Your task to perform on an android device: Open the calendar app, open the side menu, and click the "Day" option Image 0: 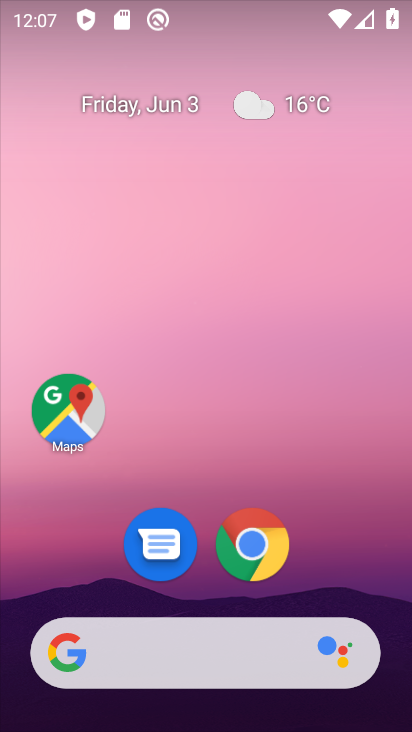
Step 0: drag from (335, 562) to (305, 139)
Your task to perform on an android device: Open the calendar app, open the side menu, and click the "Day" option Image 1: 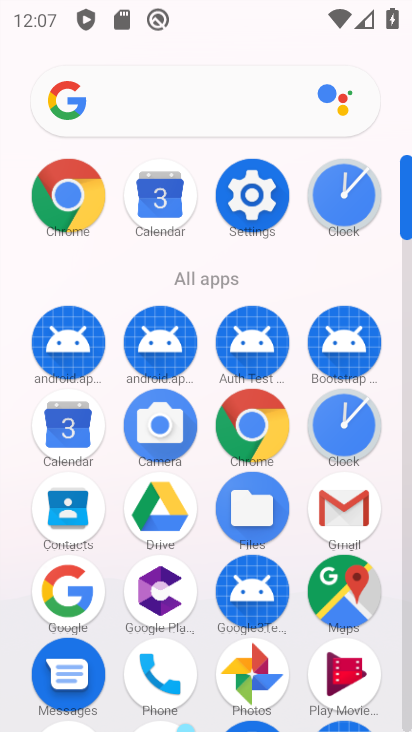
Step 1: click (57, 447)
Your task to perform on an android device: Open the calendar app, open the side menu, and click the "Day" option Image 2: 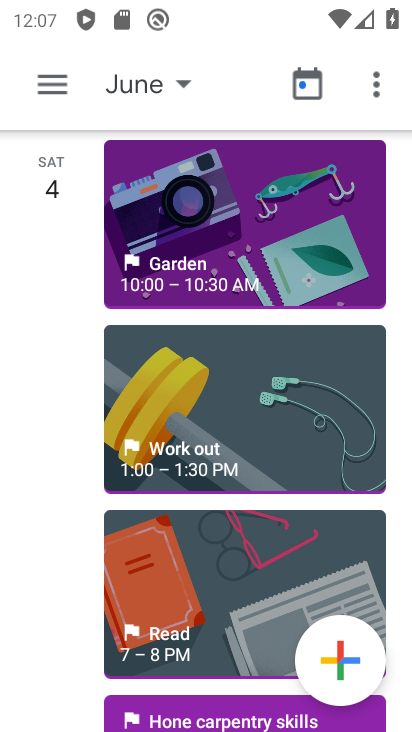
Step 2: click (31, 78)
Your task to perform on an android device: Open the calendar app, open the side menu, and click the "Day" option Image 3: 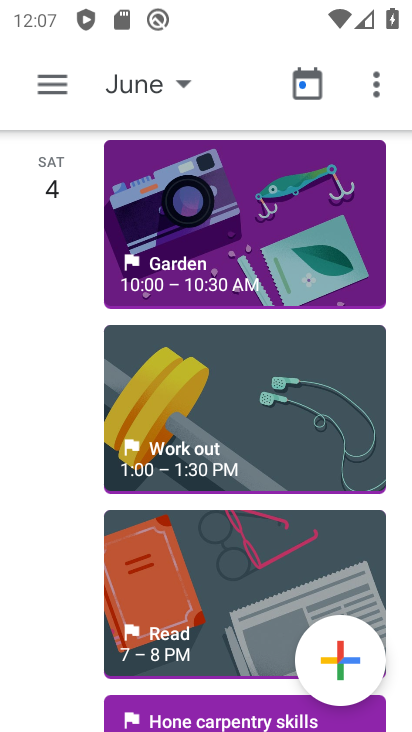
Step 3: click (47, 85)
Your task to perform on an android device: Open the calendar app, open the side menu, and click the "Day" option Image 4: 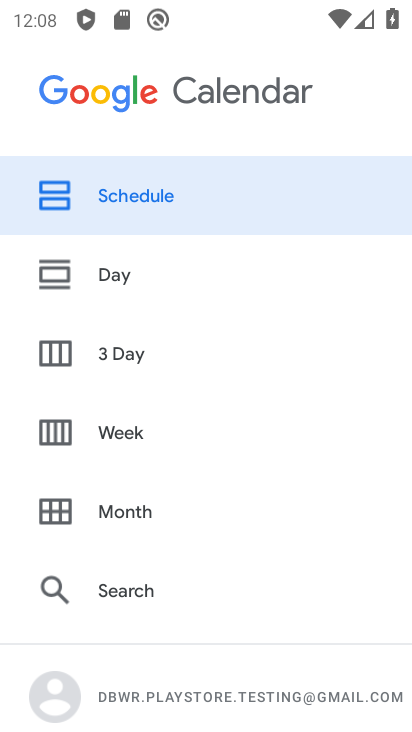
Step 4: task complete